Your task to perform on an android device: Go to privacy settings Image 0: 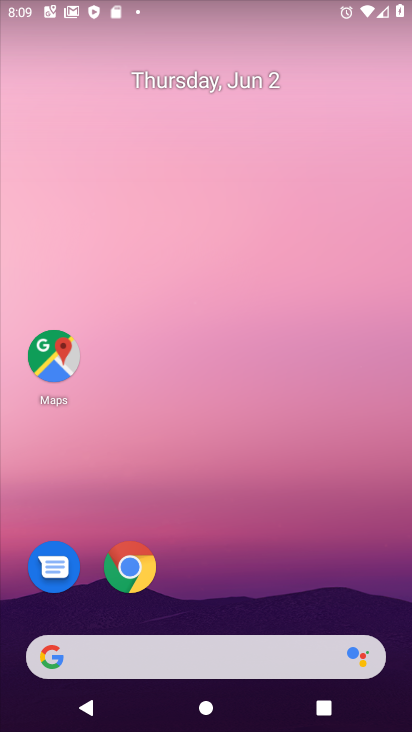
Step 0: drag from (261, 578) to (237, 202)
Your task to perform on an android device: Go to privacy settings Image 1: 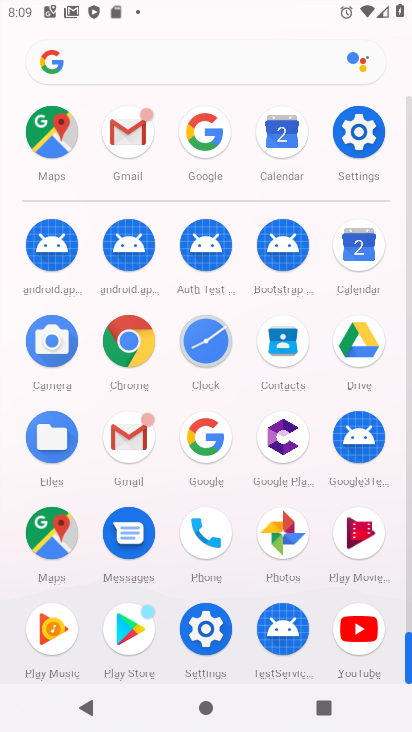
Step 1: click (357, 133)
Your task to perform on an android device: Go to privacy settings Image 2: 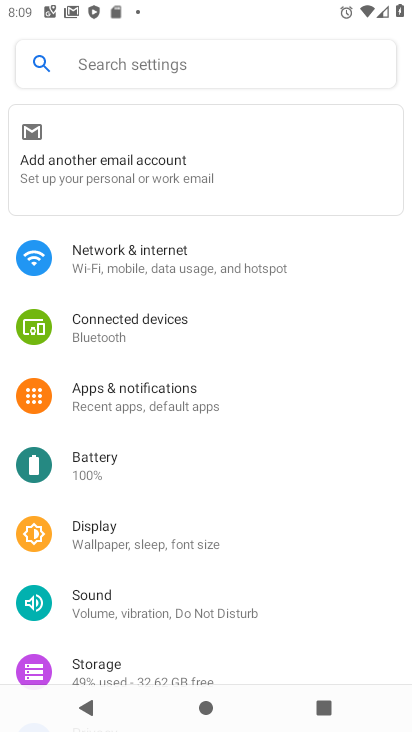
Step 2: drag from (164, 444) to (208, 373)
Your task to perform on an android device: Go to privacy settings Image 3: 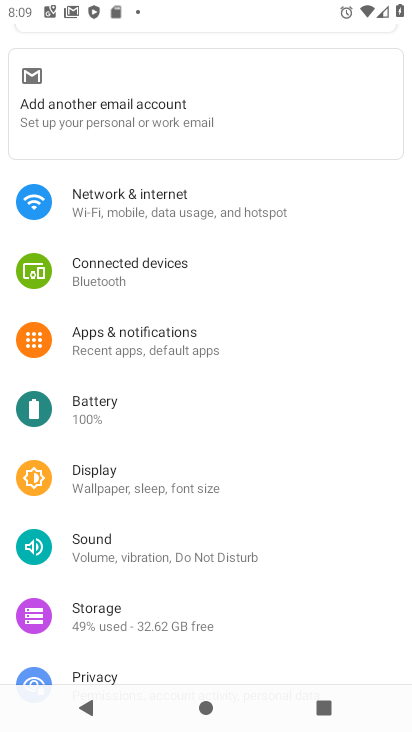
Step 3: drag from (157, 568) to (209, 487)
Your task to perform on an android device: Go to privacy settings Image 4: 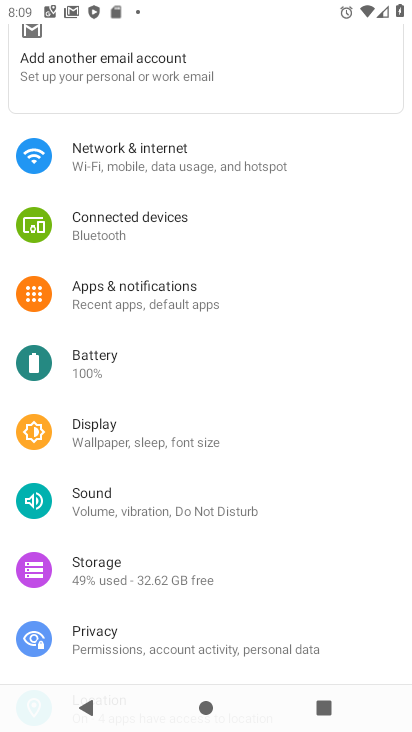
Step 4: drag from (139, 609) to (231, 488)
Your task to perform on an android device: Go to privacy settings Image 5: 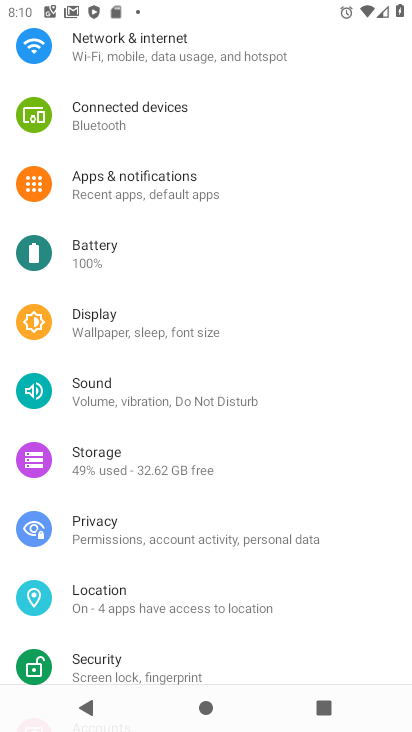
Step 5: click (189, 539)
Your task to perform on an android device: Go to privacy settings Image 6: 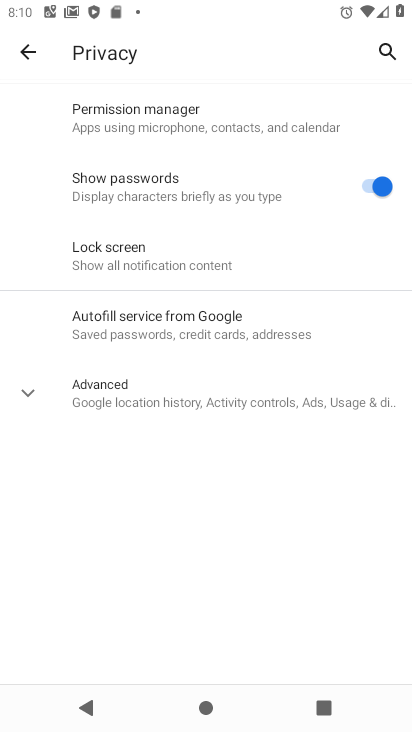
Step 6: task complete